Your task to perform on an android device: View the shopping cart on ebay. Add usb-c to the cart on ebay, then select checkout. Image 0: 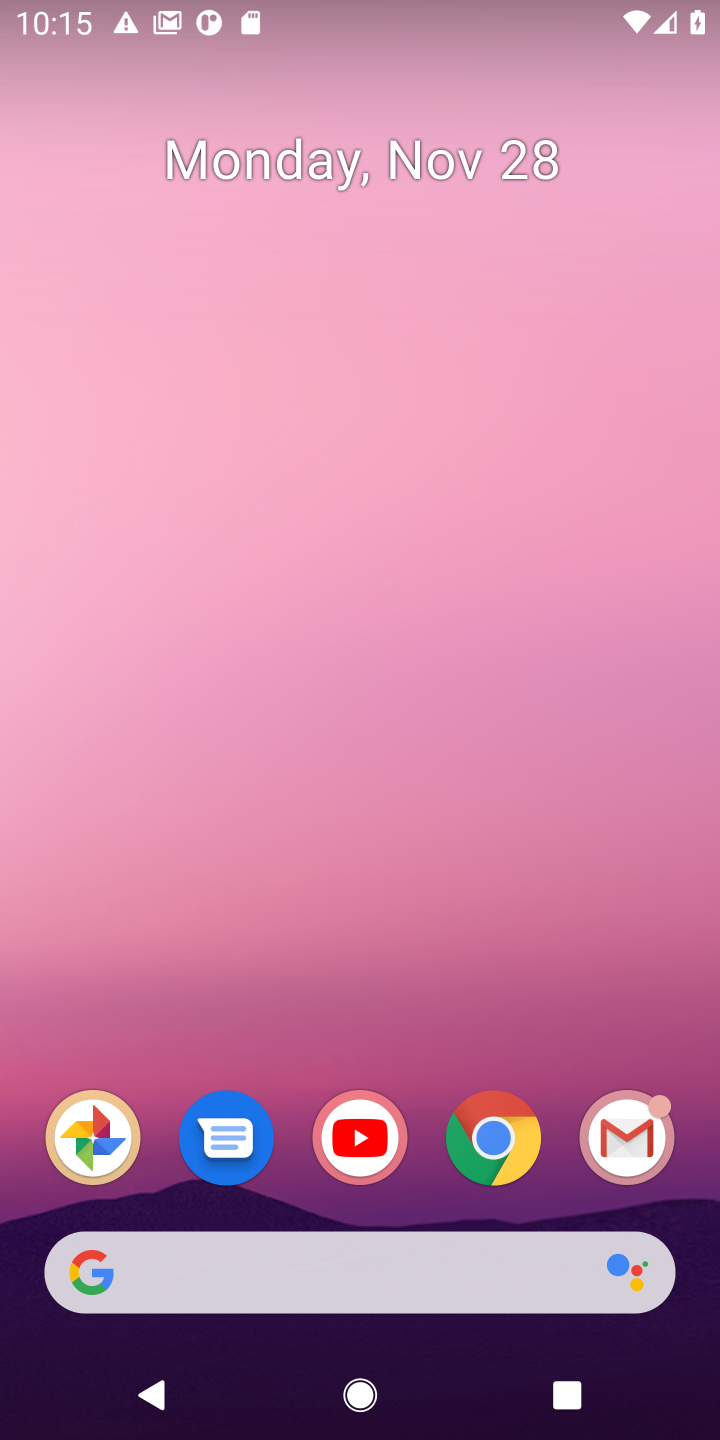
Step 0: click (497, 1136)
Your task to perform on an android device: View the shopping cart on ebay. Add usb-c to the cart on ebay, then select checkout. Image 1: 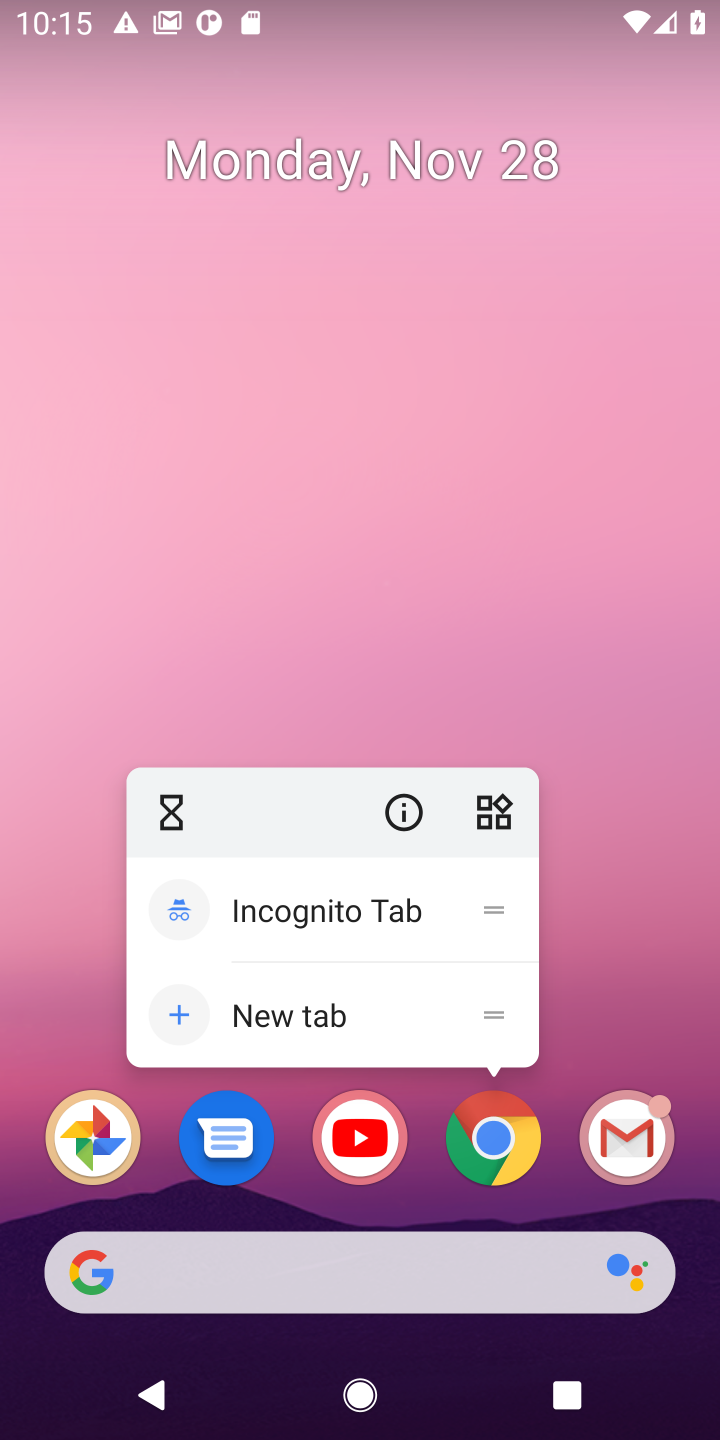
Step 1: click (497, 1136)
Your task to perform on an android device: View the shopping cart on ebay. Add usb-c to the cart on ebay, then select checkout. Image 2: 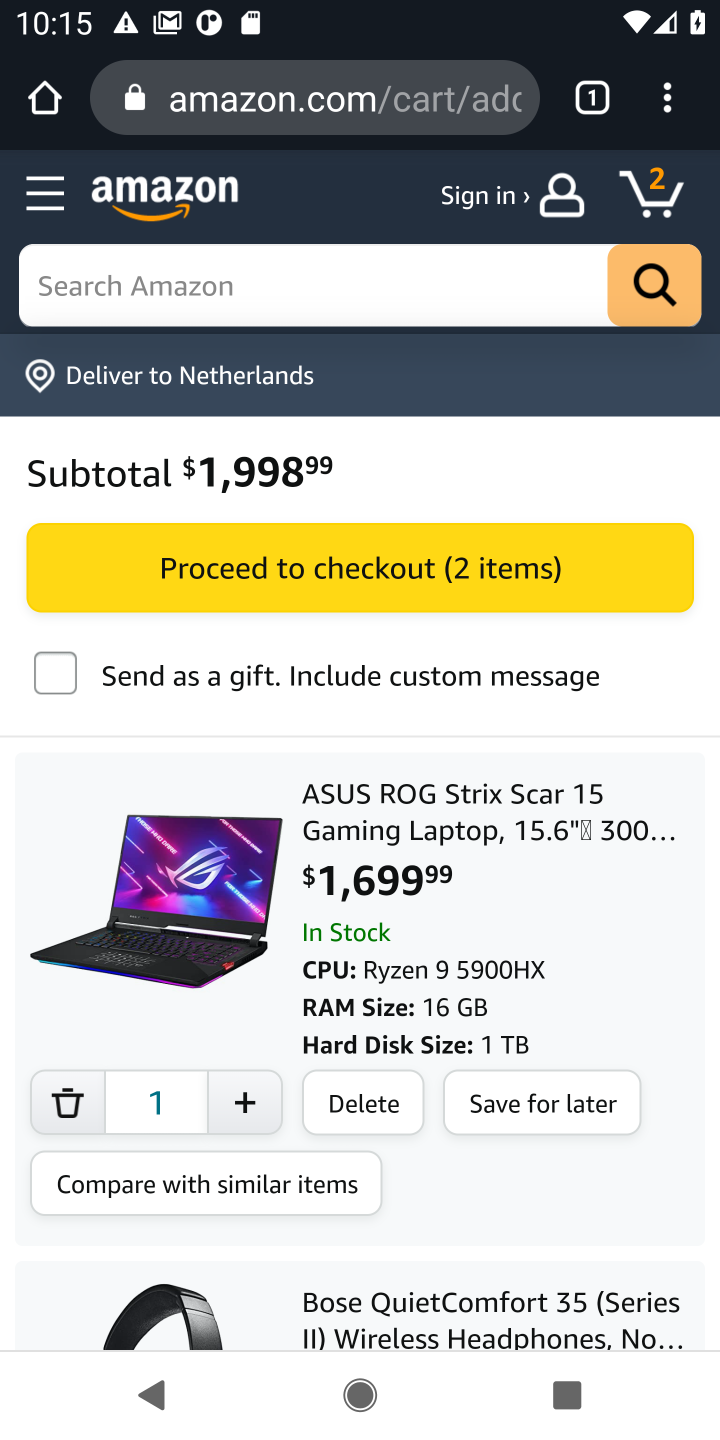
Step 2: click (338, 93)
Your task to perform on an android device: View the shopping cart on ebay. Add usb-c to the cart on ebay, then select checkout. Image 3: 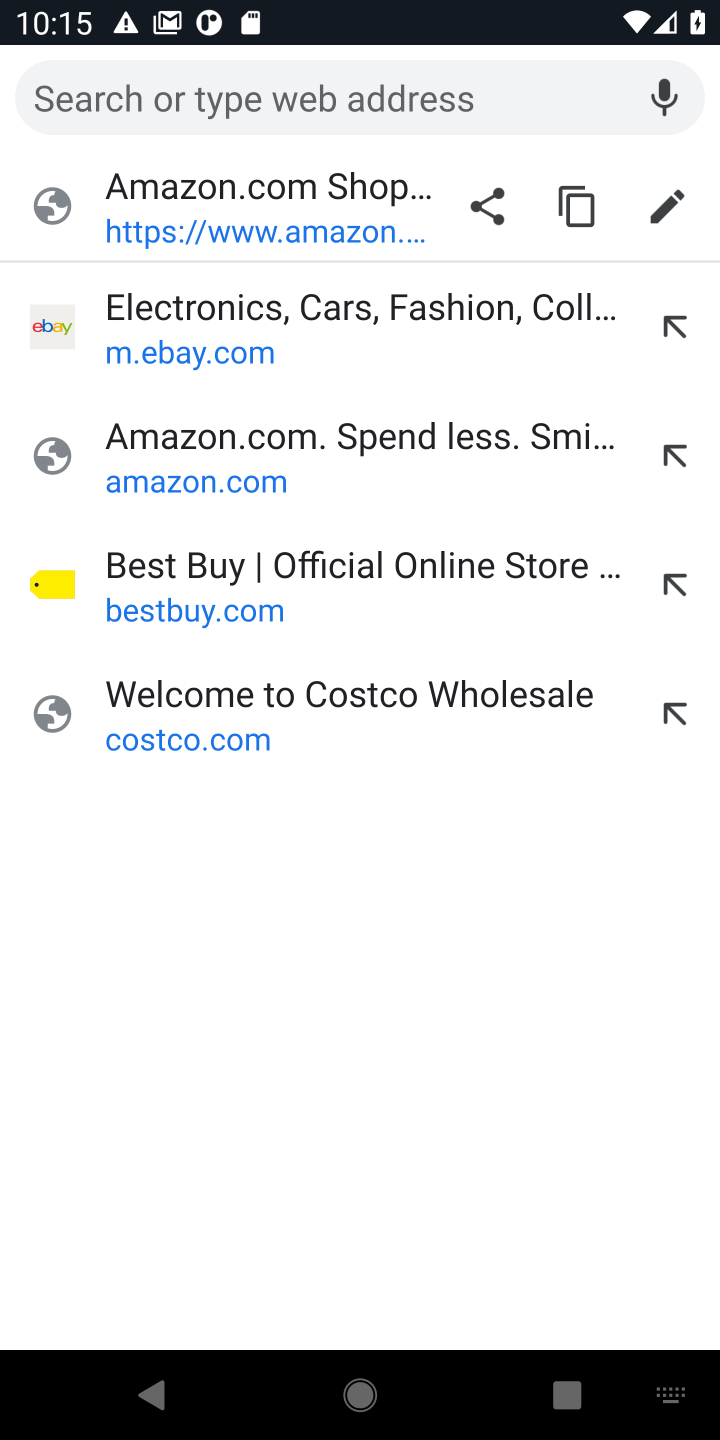
Step 3: click (174, 312)
Your task to perform on an android device: View the shopping cart on ebay. Add usb-c to the cart on ebay, then select checkout. Image 4: 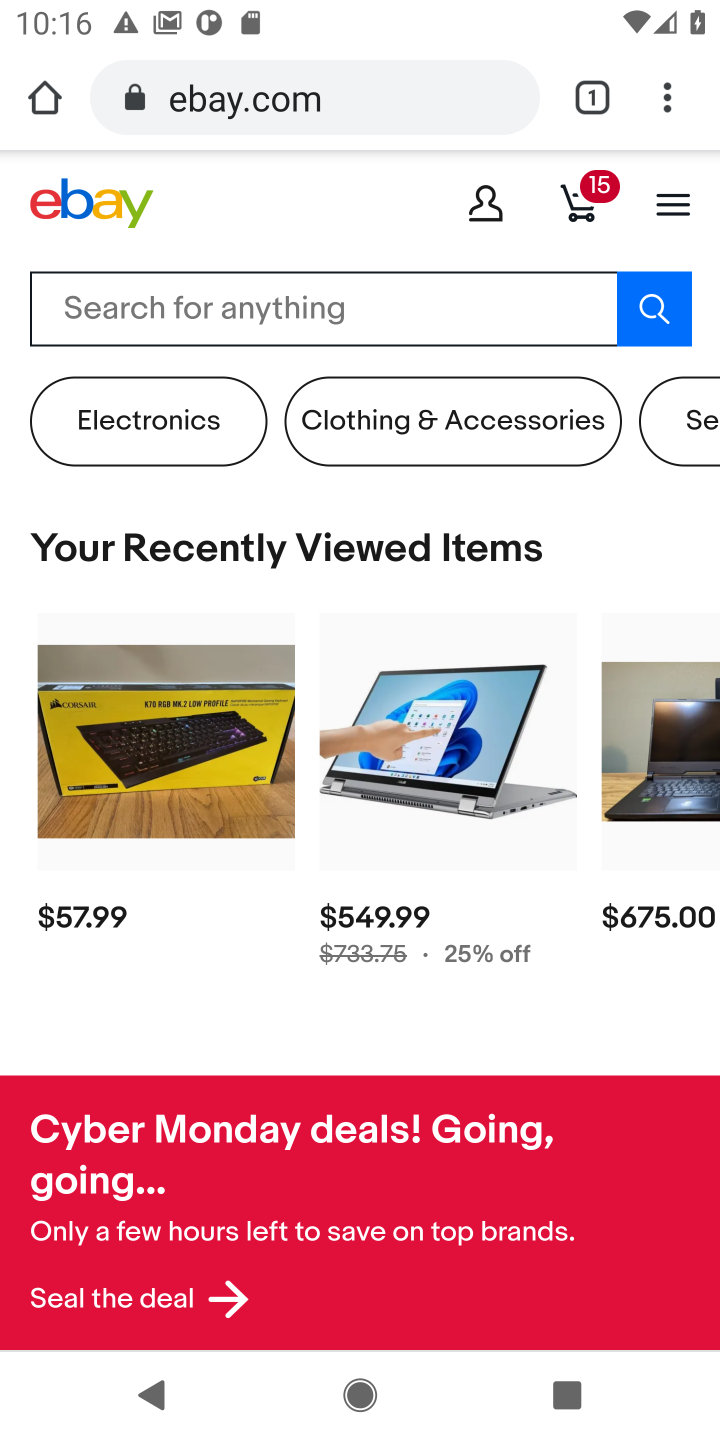
Step 4: click (583, 198)
Your task to perform on an android device: View the shopping cart on ebay. Add usb-c to the cart on ebay, then select checkout. Image 5: 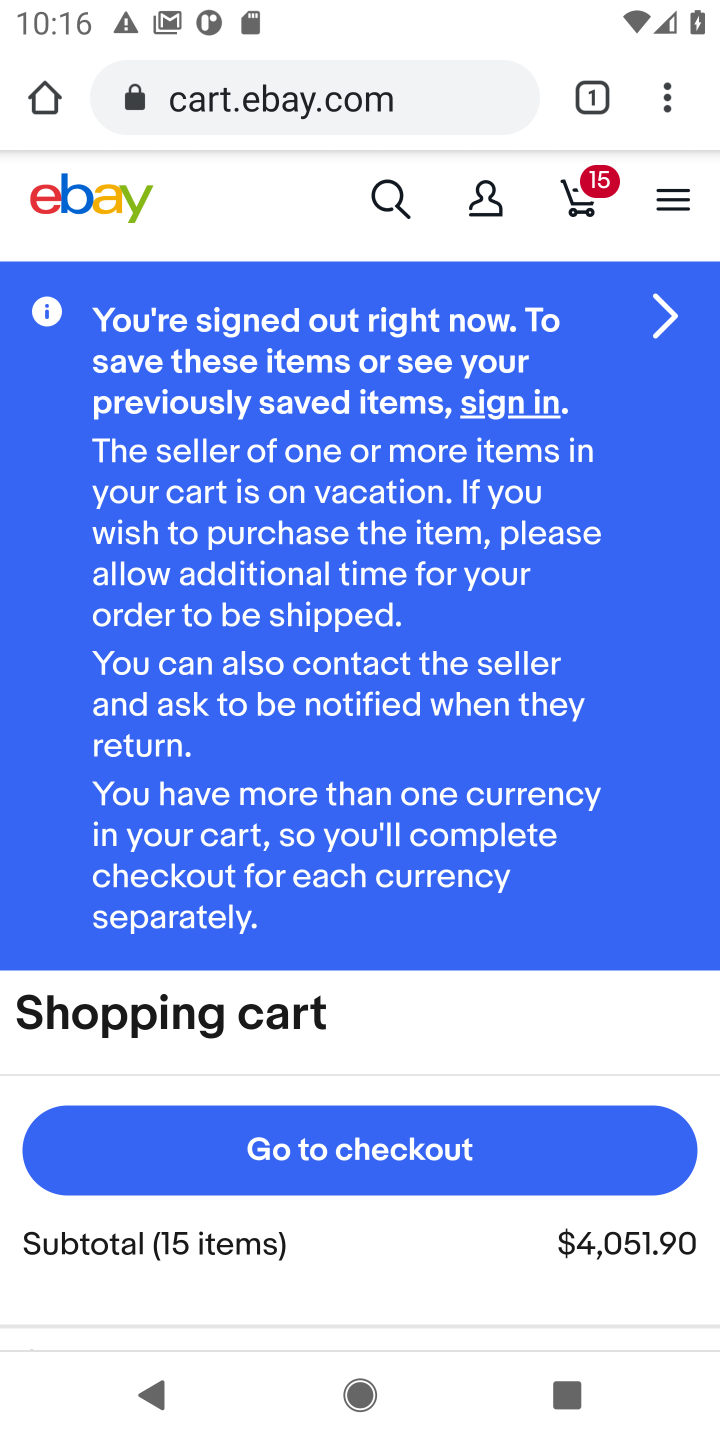
Step 5: click (353, 192)
Your task to perform on an android device: View the shopping cart on ebay. Add usb-c to the cart on ebay, then select checkout. Image 6: 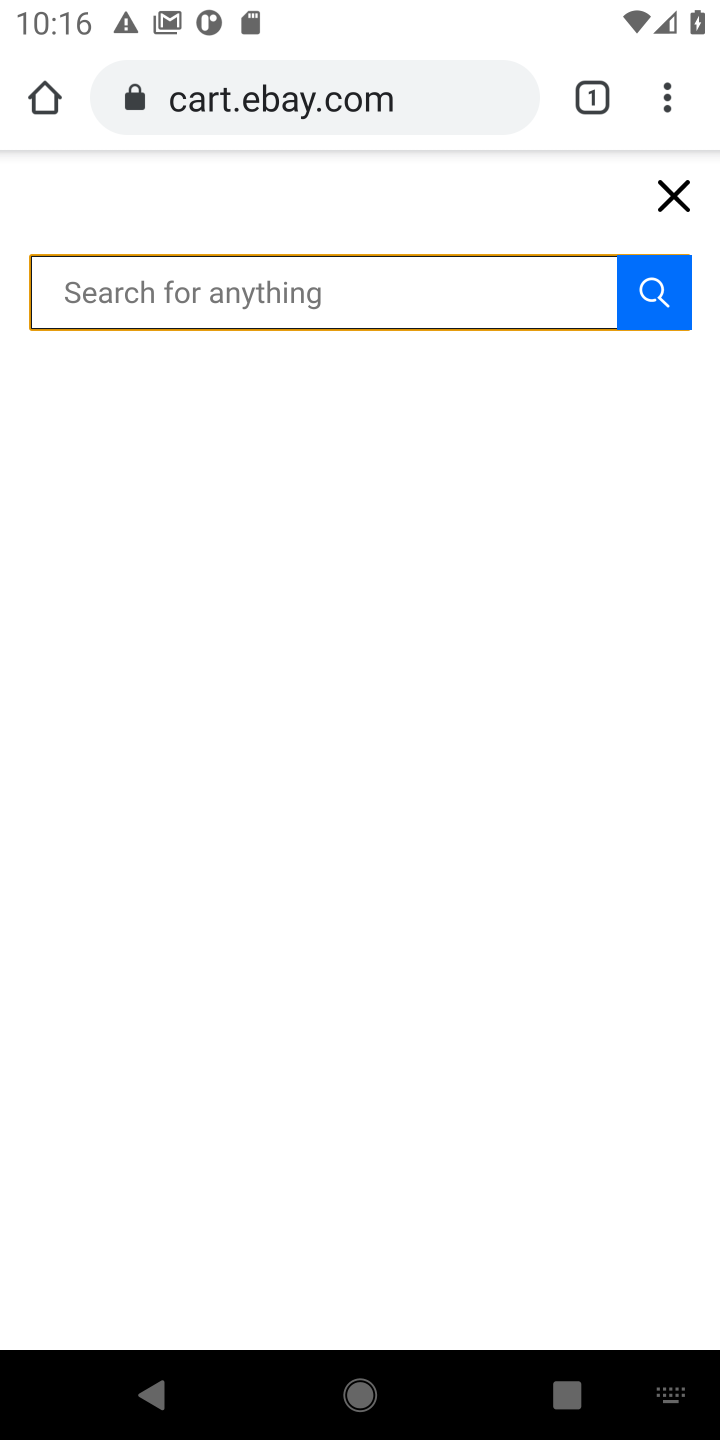
Step 6: type "usb-c "
Your task to perform on an android device: View the shopping cart on ebay. Add usb-c to the cart on ebay, then select checkout. Image 7: 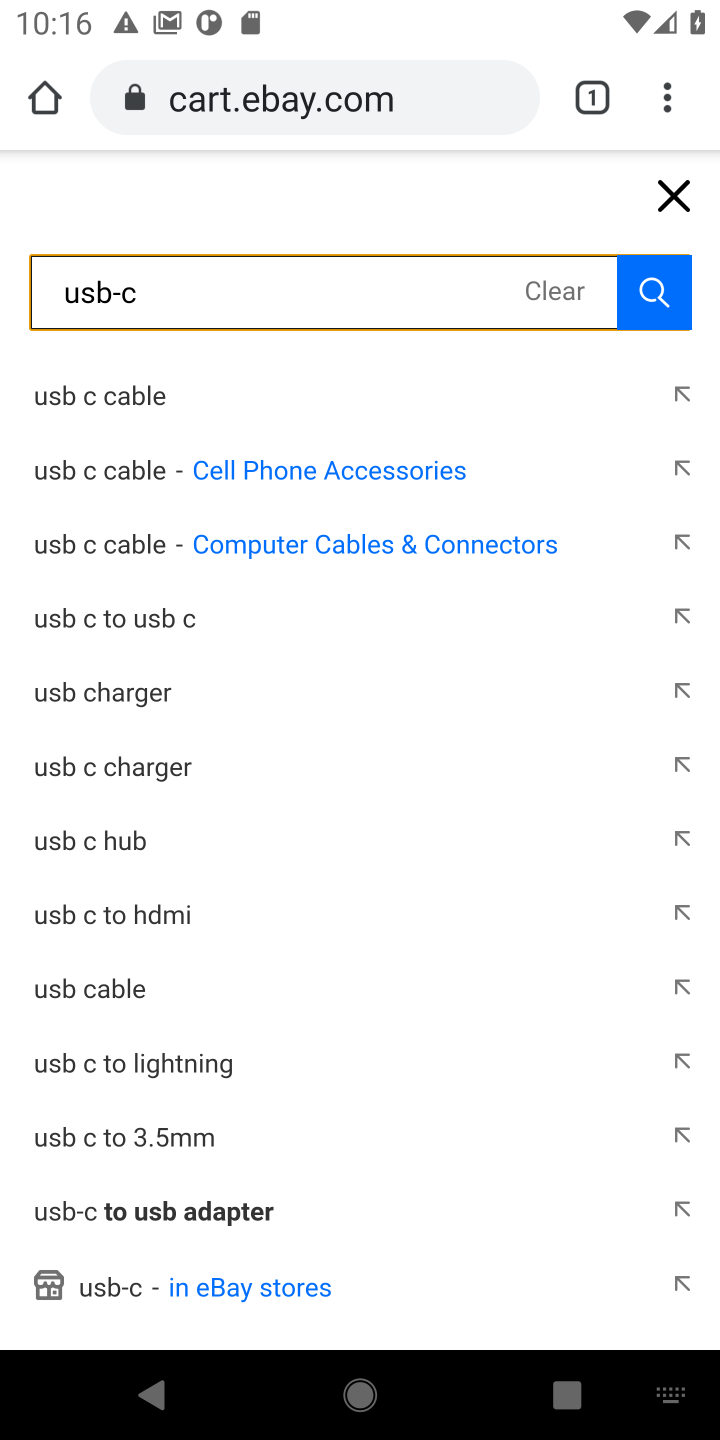
Step 7: click (93, 406)
Your task to perform on an android device: View the shopping cart on ebay. Add usb-c to the cart on ebay, then select checkout. Image 8: 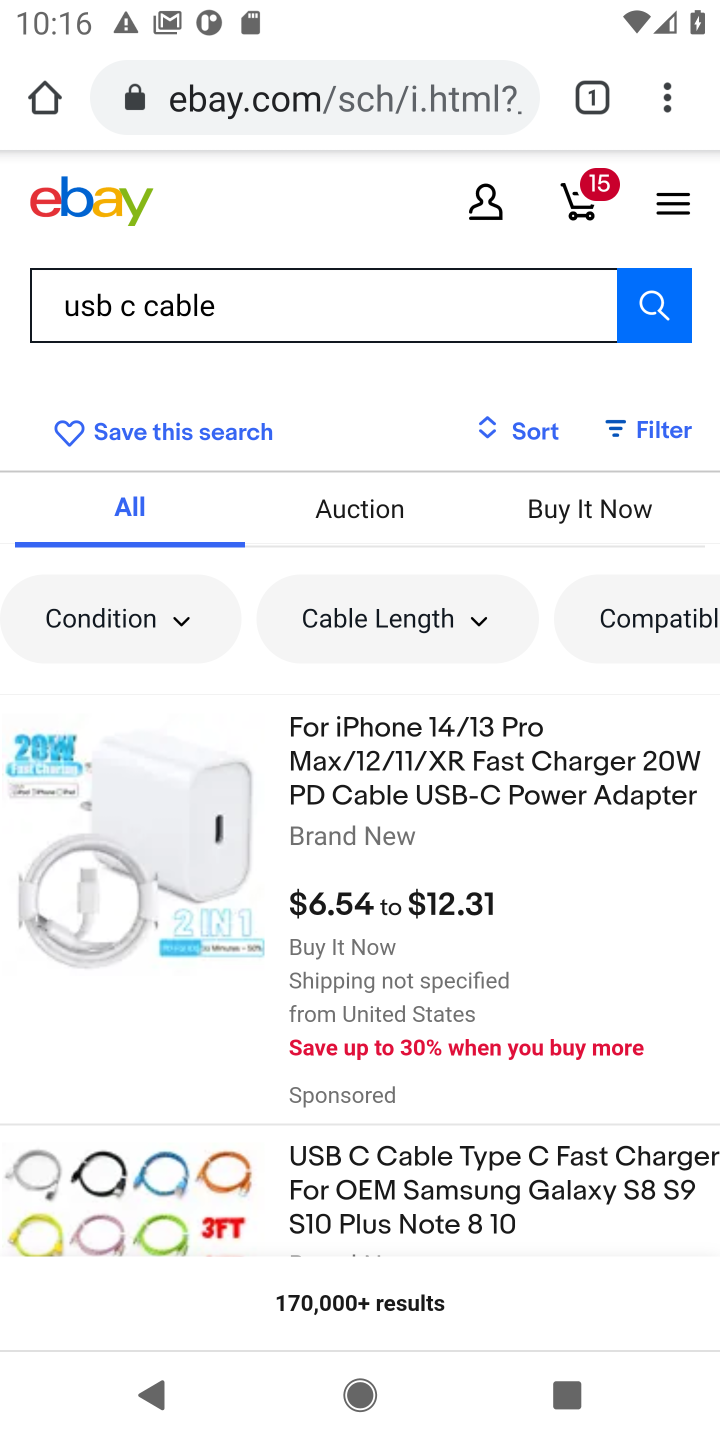
Step 8: click (341, 788)
Your task to perform on an android device: View the shopping cart on ebay. Add usb-c to the cart on ebay, then select checkout. Image 9: 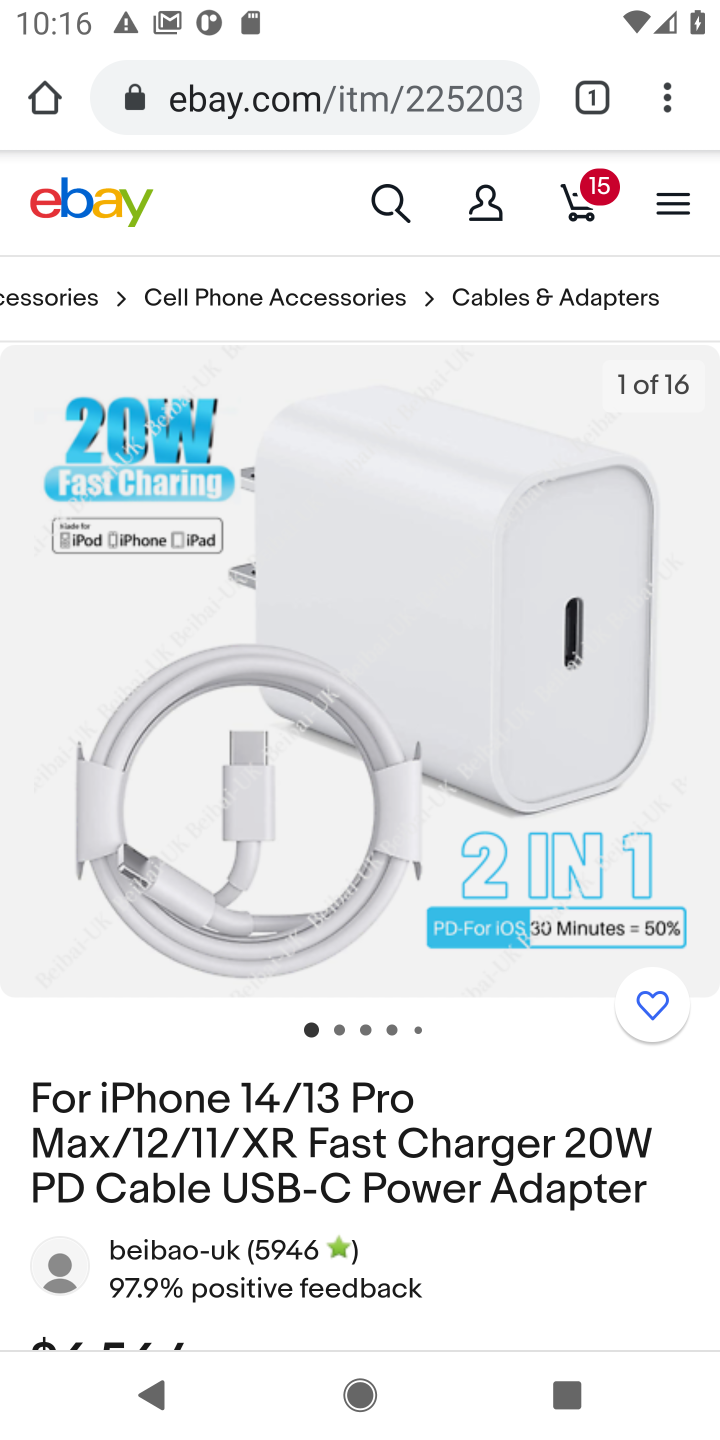
Step 9: drag from (511, 1051) to (507, 550)
Your task to perform on an android device: View the shopping cart on ebay. Add usb-c to the cart on ebay, then select checkout. Image 10: 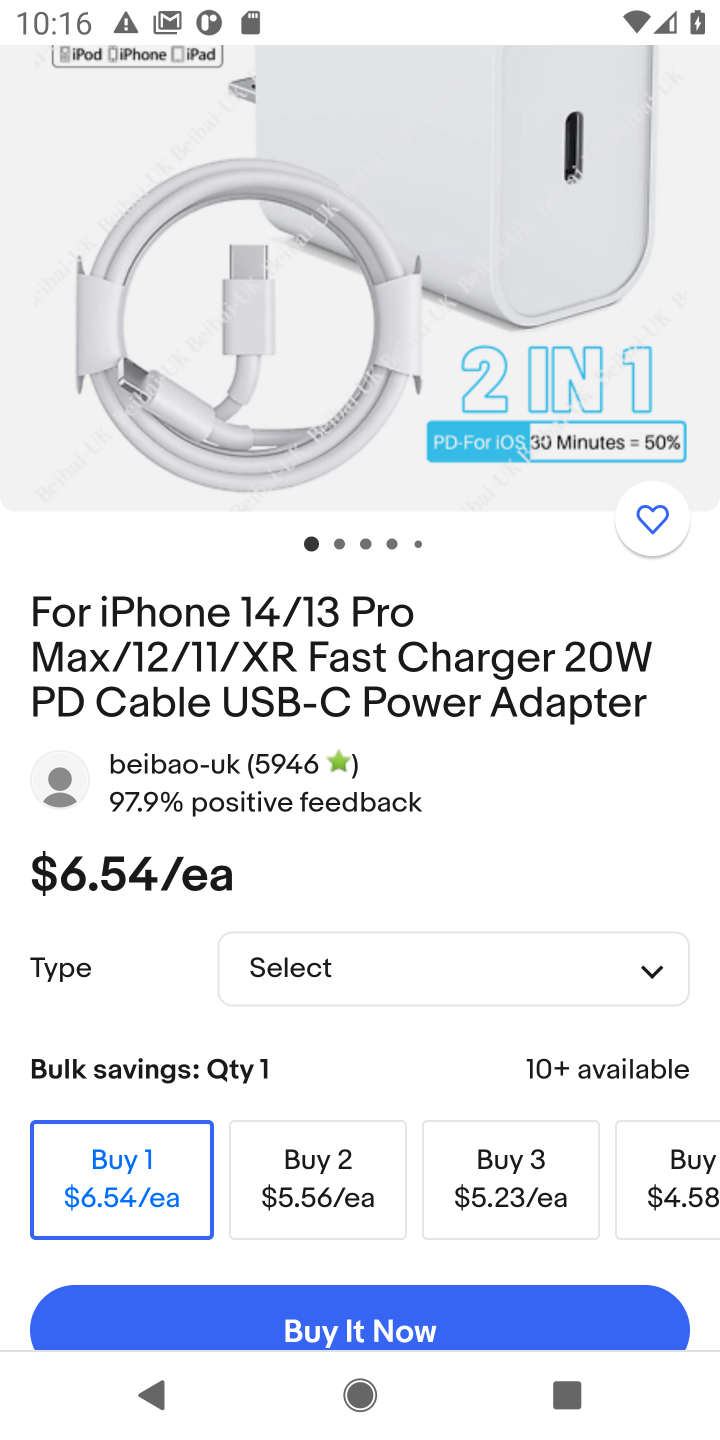
Step 10: drag from (448, 887) to (442, 590)
Your task to perform on an android device: View the shopping cart on ebay. Add usb-c to the cart on ebay, then select checkout. Image 11: 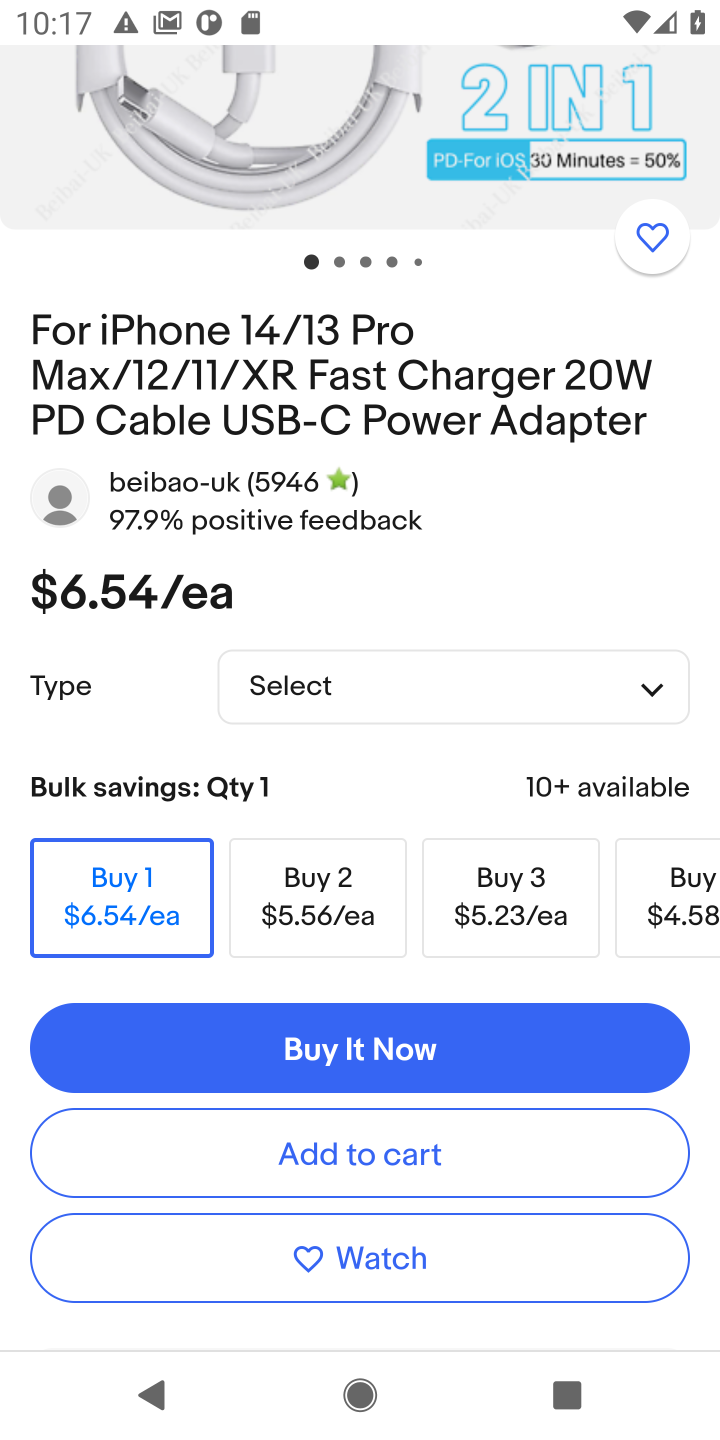
Step 11: click (294, 1137)
Your task to perform on an android device: View the shopping cart on ebay. Add usb-c to the cart on ebay, then select checkout. Image 12: 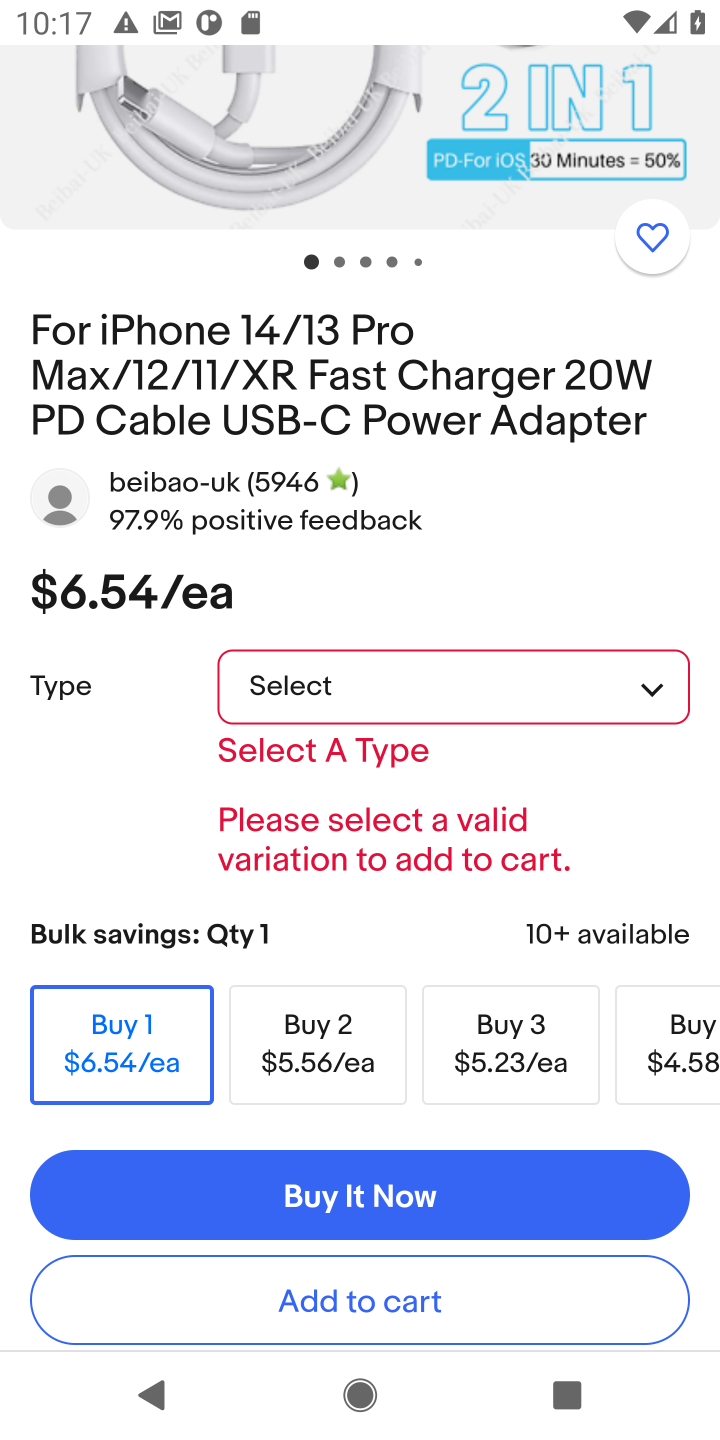
Step 12: click (633, 695)
Your task to perform on an android device: View the shopping cart on ebay. Add usb-c to the cart on ebay, then select checkout. Image 13: 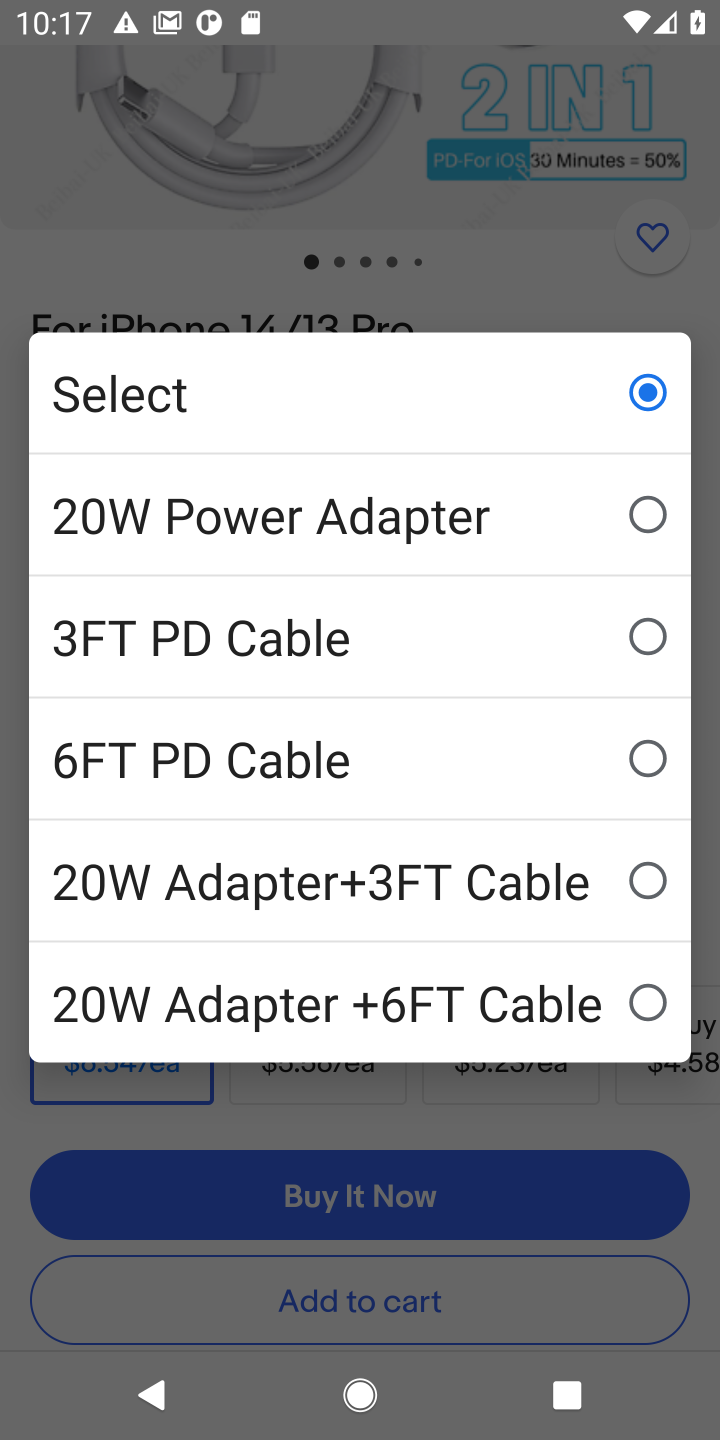
Step 13: click (633, 695)
Your task to perform on an android device: View the shopping cart on ebay. Add usb-c to the cart on ebay, then select checkout. Image 14: 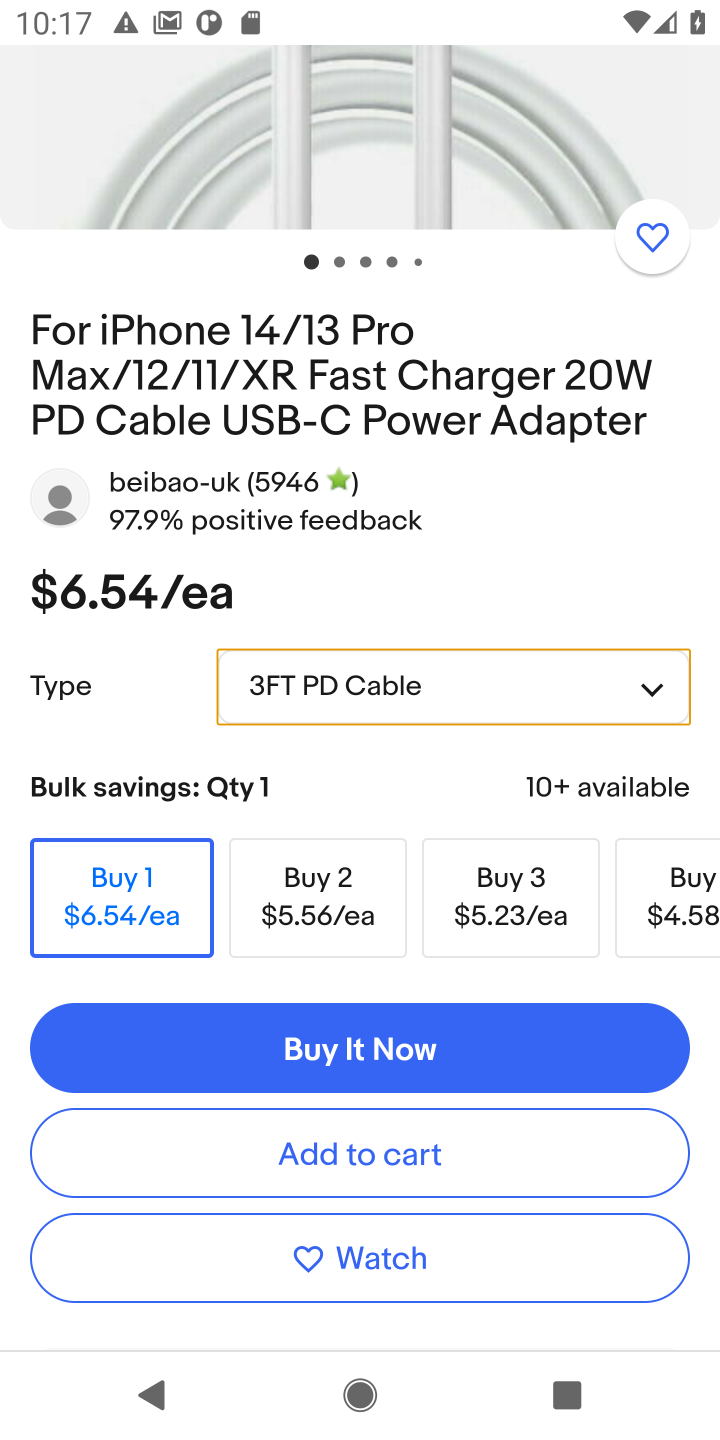
Step 14: click (367, 1151)
Your task to perform on an android device: View the shopping cart on ebay. Add usb-c to the cart on ebay, then select checkout. Image 15: 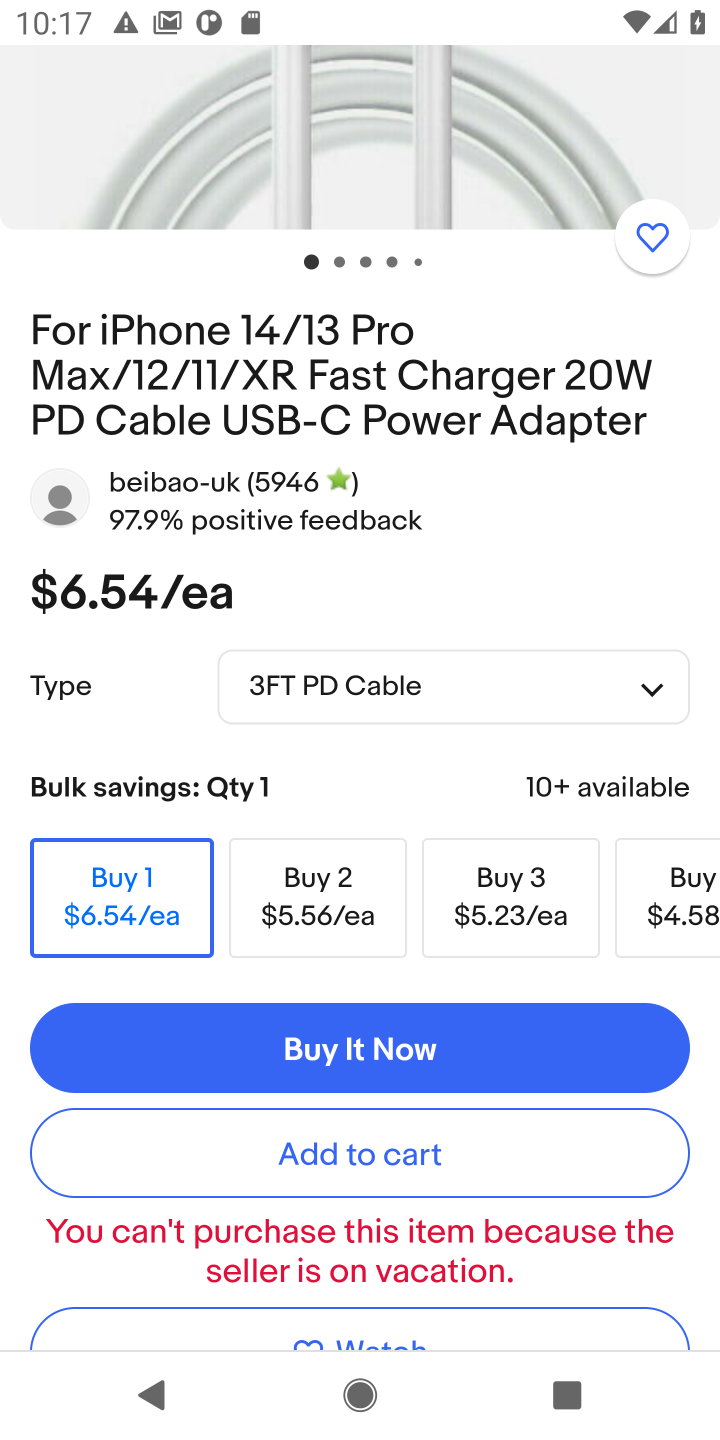
Step 15: press back button
Your task to perform on an android device: View the shopping cart on ebay. Add usb-c to the cart on ebay, then select checkout. Image 16: 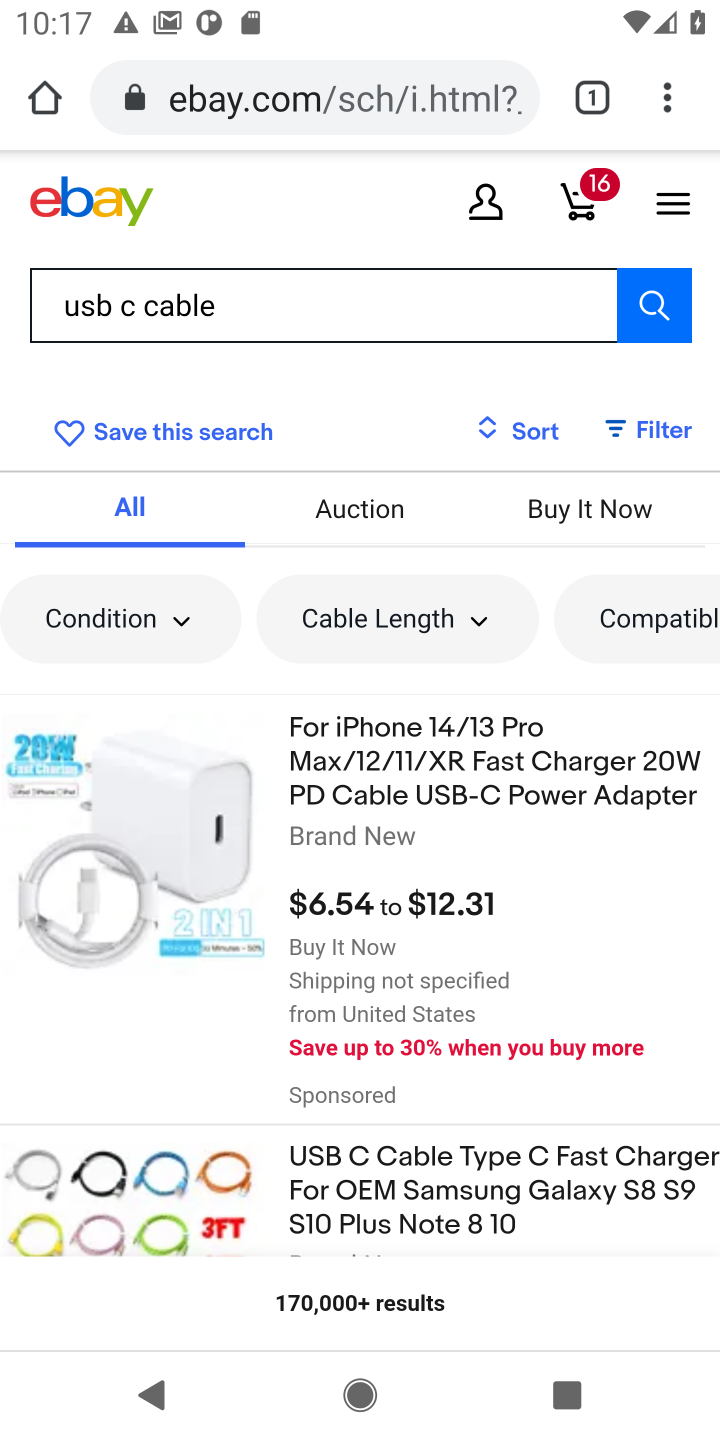
Step 16: click (416, 1223)
Your task to perform on an android device: View the shopping cart on ebay. Add usb-c to the cart on ebay, then select checkout. Image 17: 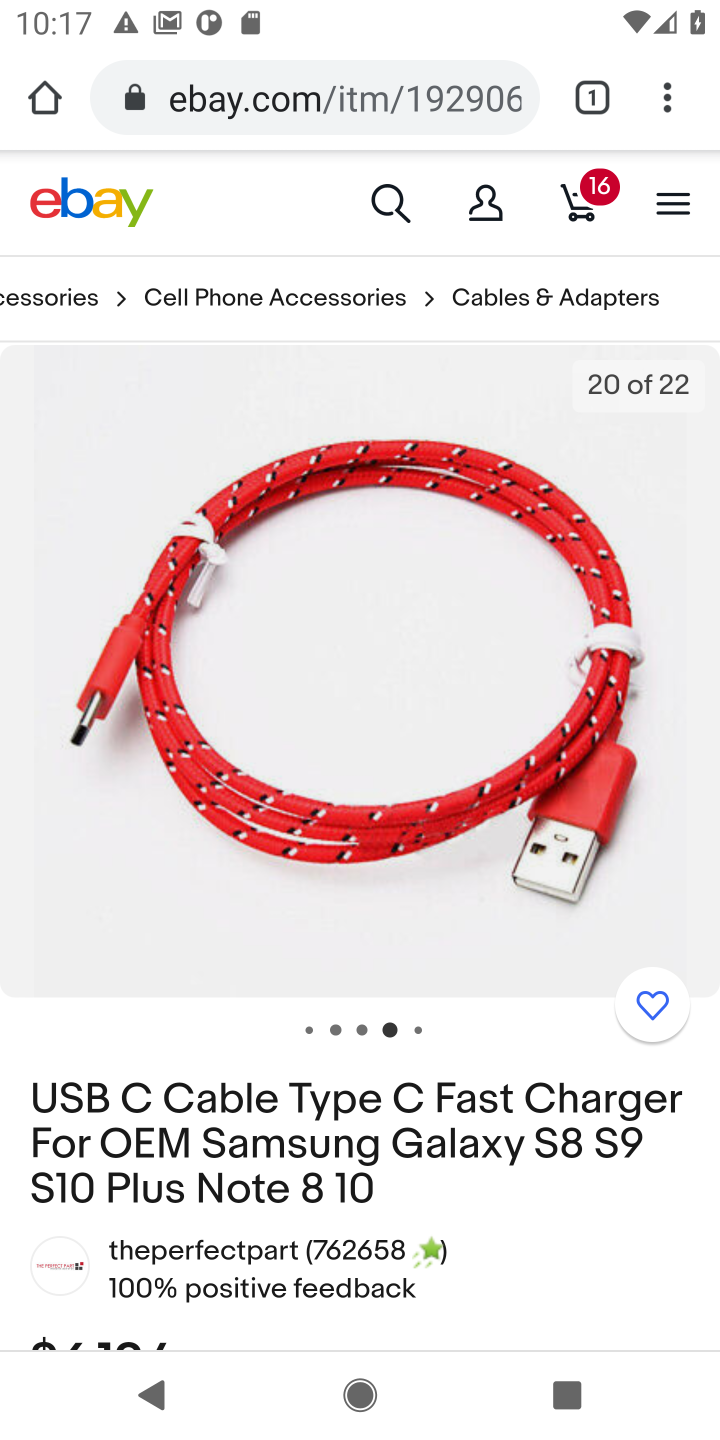
Step 17: drag from (514, 1129) to (531, 518)
Your task to perform on an android device: View the shopping cart on ebay. Add usb-c to the cart on ebay, then select checkout. Image 18: 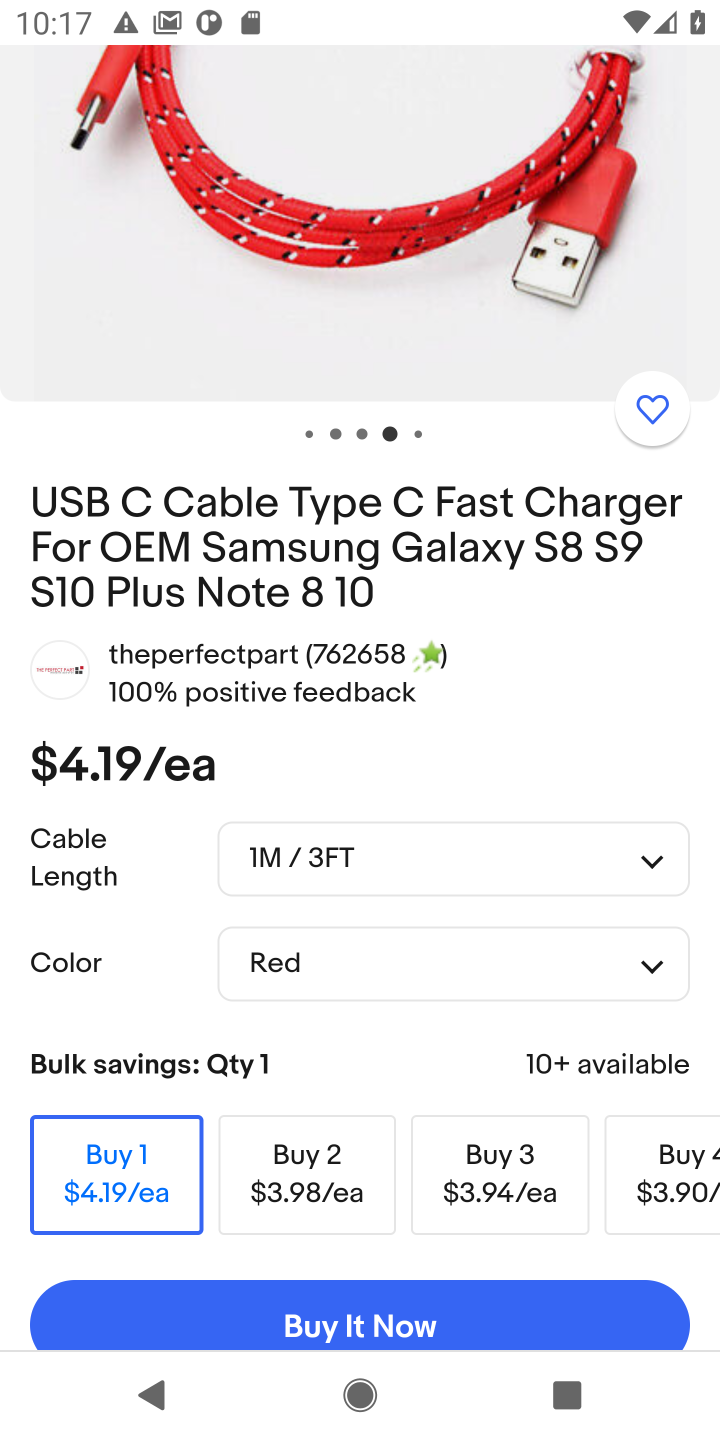
Step 18: drag from (570, 747) to (582, 149)
Your task to perform on an android device: View the shopping cart on ebay. Add usb-c to the cart on ebay, then select checkout. Image 19: 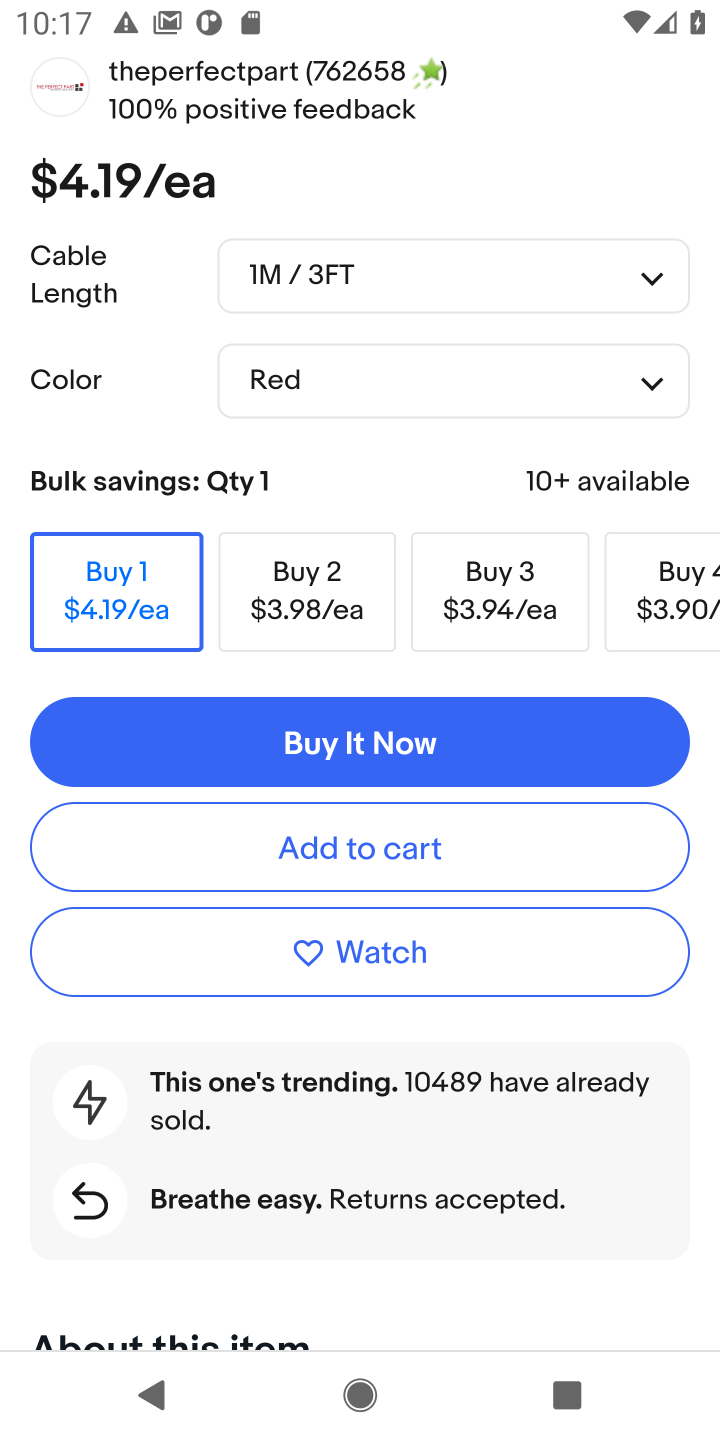
Step 19: click (331, 832)
Your task to perform on an android device: View the shopping cart on ebay. Add usb-c to the cart on ebay, then select checkout. Image 20: 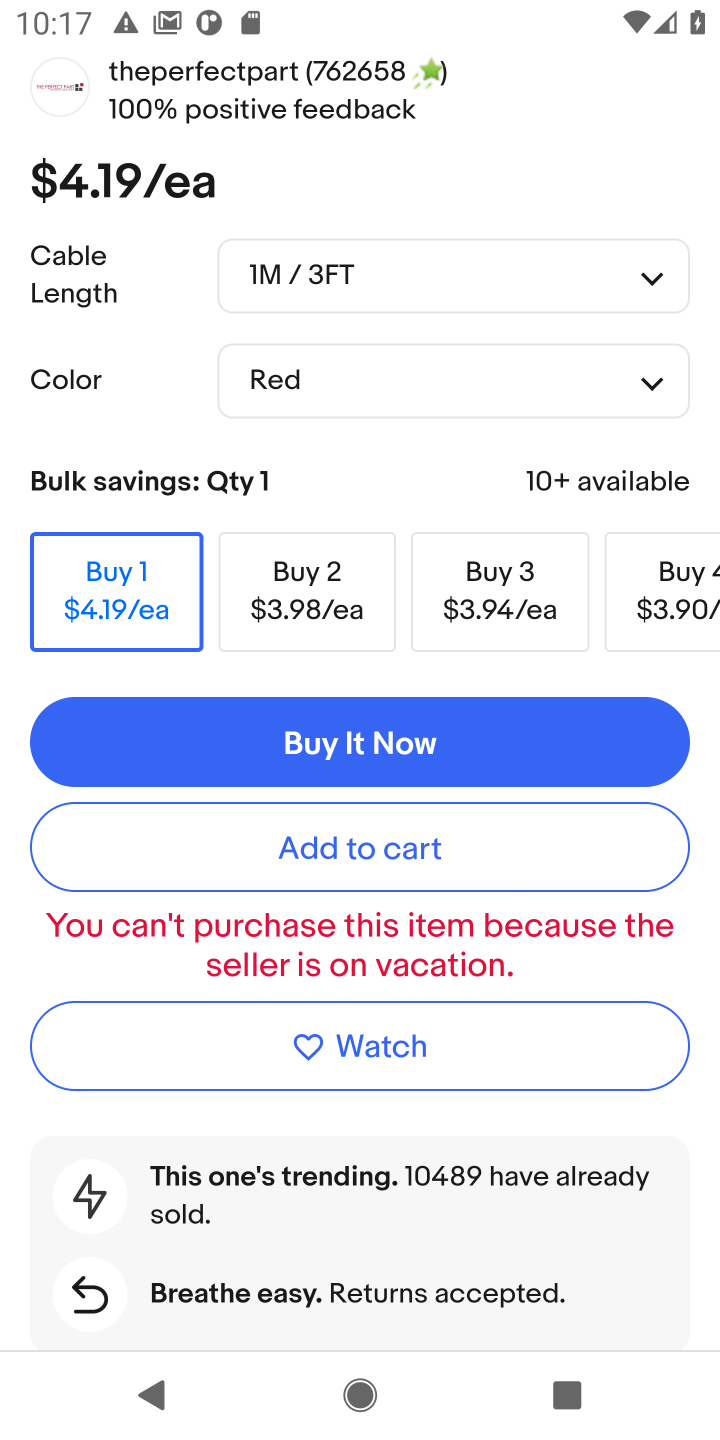
Step 20: task complete